Your task to perform on an android device: Open Google Maps Image 0: 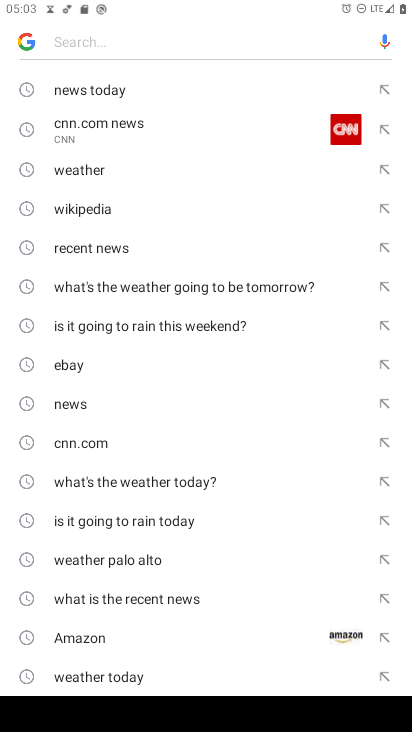
Step 0: press home button
Your task to perform on an android device: Open Google Maps Image 1: 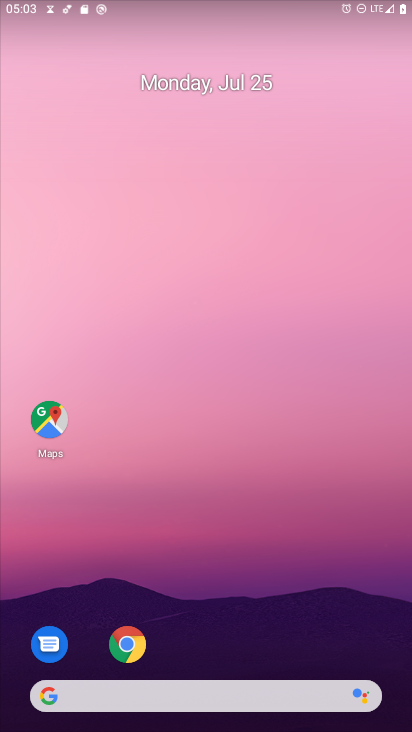
Step 1: click (53, 417)
Your task to perform on an android device: Open Google Maps Image 2: 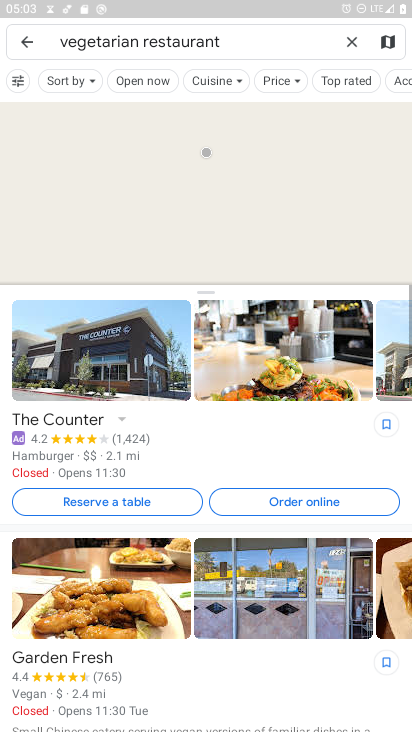
Step 2: click (28, 45)
Your task to perform on an android device: Open Google Maps Image 3: 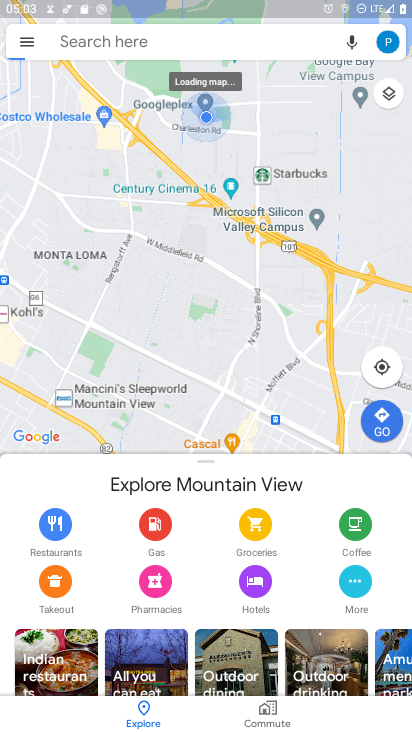
Step 3: task complete